Your task to perform on an android device: Open Google Image 0: 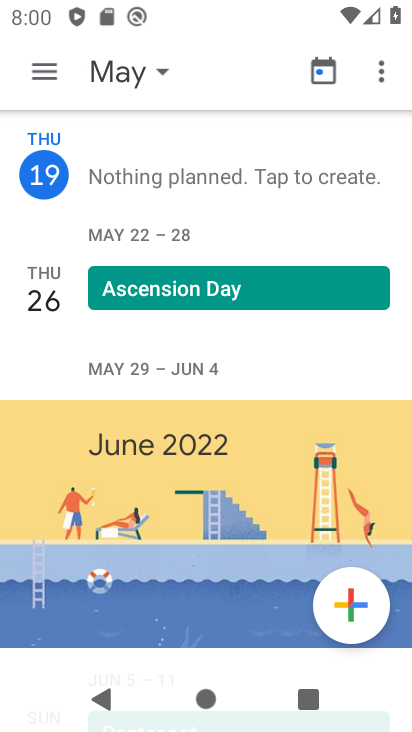
Step 0: press home button
Your task to perform on an android device: Open Google Image 1: 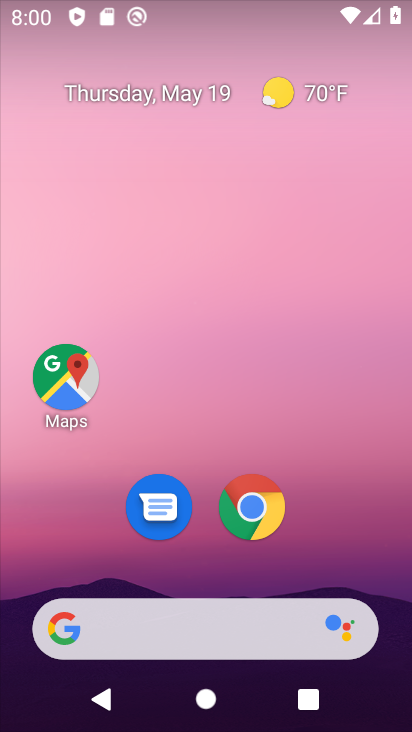
Step 1: drag from (203, 576) to (182, 143)
Your task to perform on an android device: Open Google Image 2: 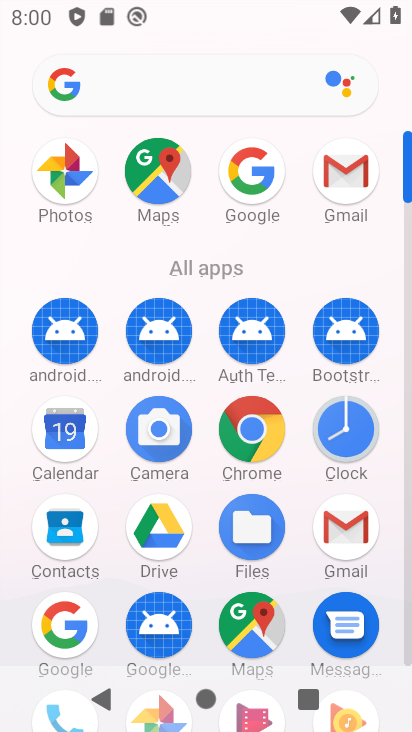
Step 2: click (234, 166)
Your task to perform on an android device: Open Google Image 3: 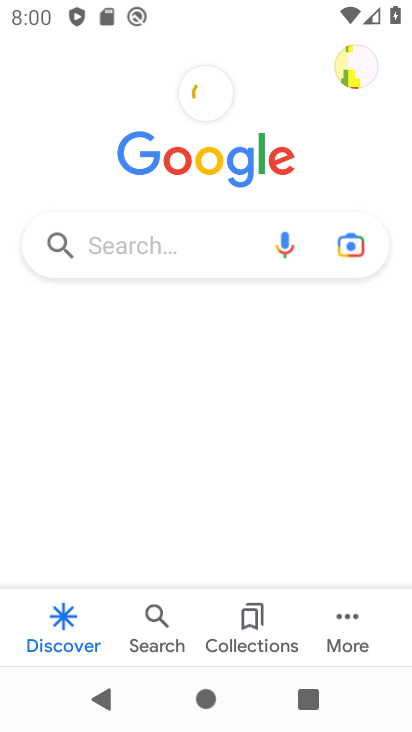
Step 3: task complete